Your task to perform on an android device: Open wifi settings Image 0: 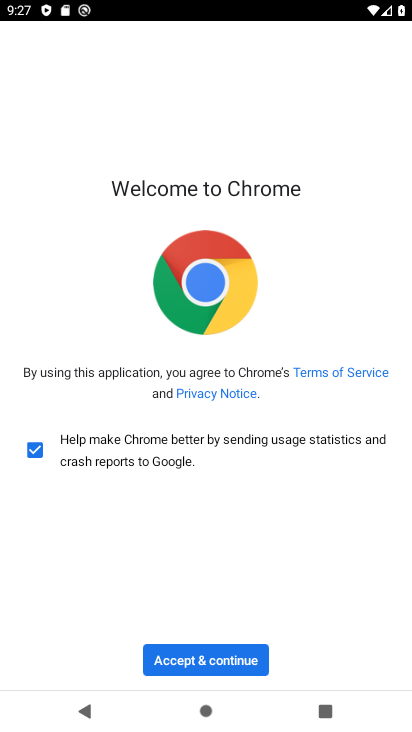
Step 0: press home button
Your task to perform on an android device: Open wifi settings Image 1: 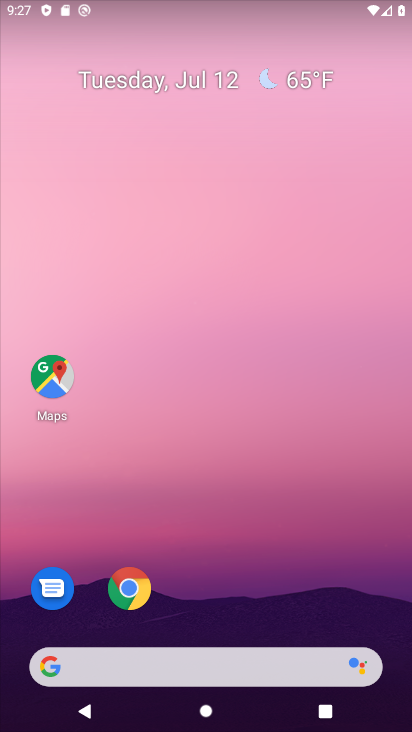
Step 1: click (399, 51)
Your task to perform on an android device: Open wifi settings Image 2: 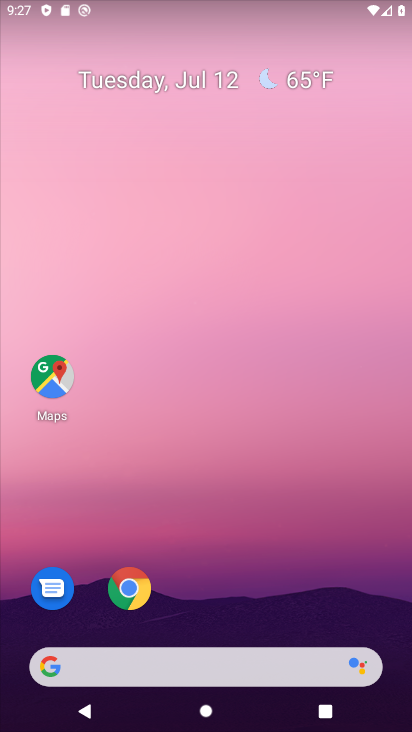
Step 2: drag from (273, 248) to (314, 174)
Your task to perform on an android device: Open wifi settings Image 3: 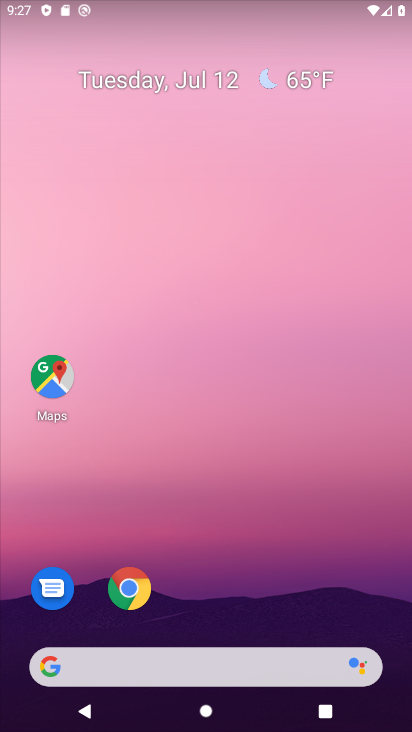
Step 3: drag from (34, 702) to (345, 108)
Your task to perform on an android device: Open wifi settings Image 4: 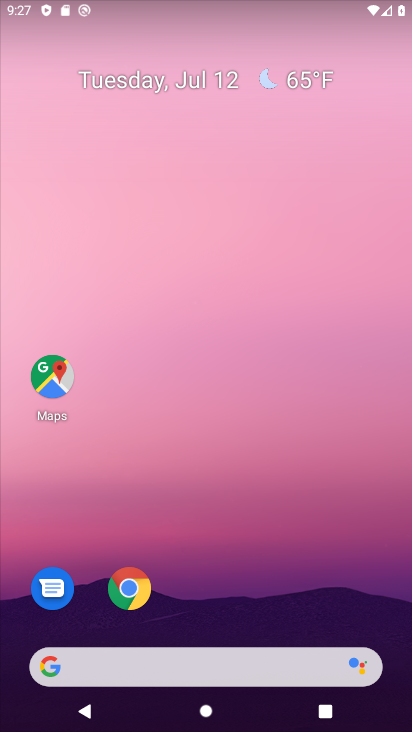
Step 4: drag from (35, 709) to (384, 4)
Your task to perform on an android device: Open wifi settings Image 5: 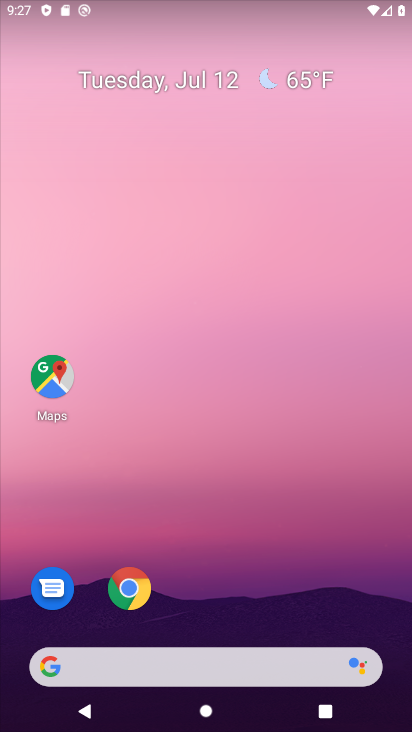
Step 5: drag from (42, 673) to (381, 58)
Your task to perform on an android device: Open wifi settings Image 6: 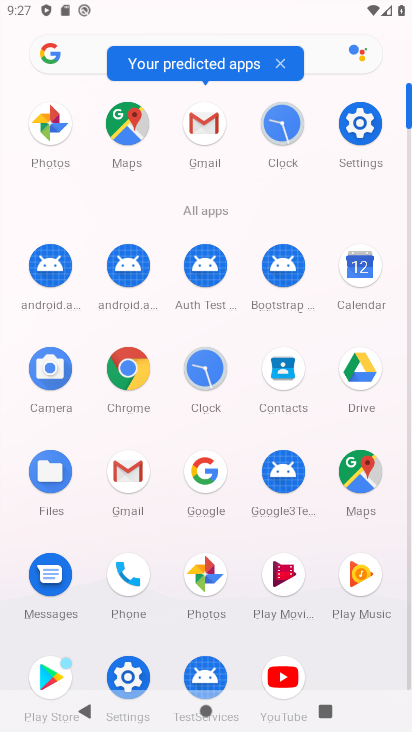
Step 6: click (126, 685)
Your task to perform on an android device: Open wifi settings Image 7: 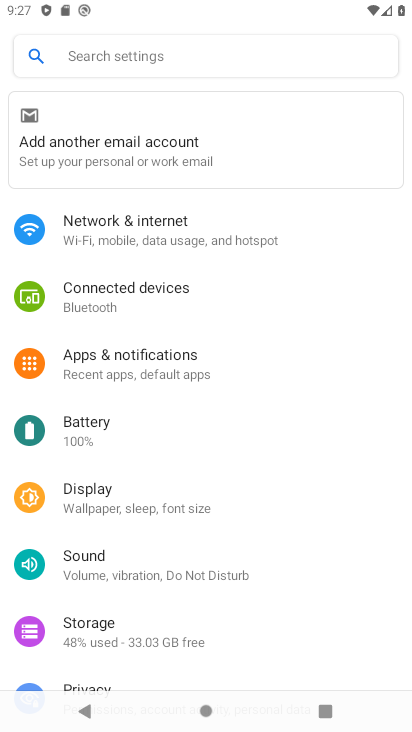
Step 7: click (144, 220)
Your task to perform on an android device: Open wifi settings Image 8: 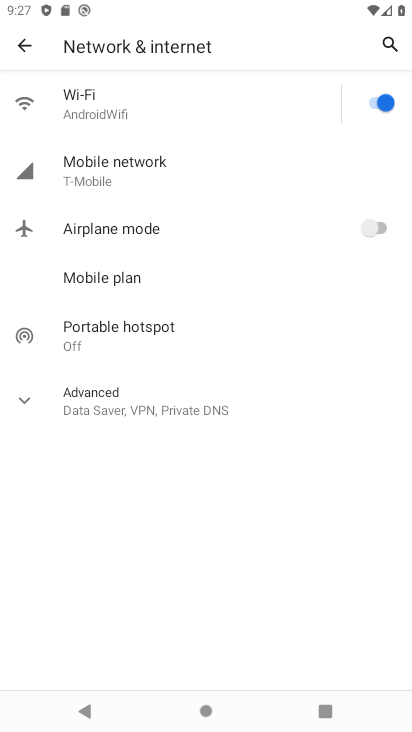
Step 8: task complete